Your task to perform on an android device: What is the recent news? Image 0: 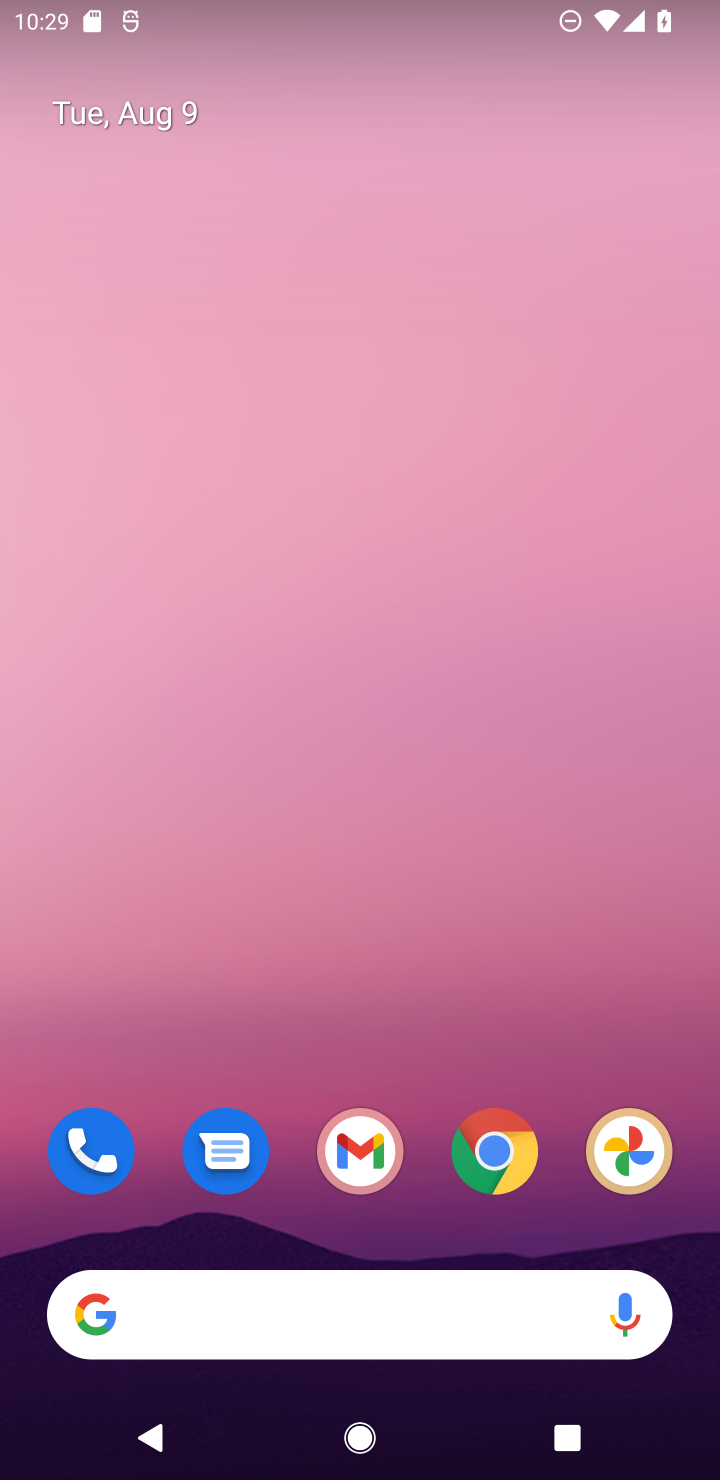
Step 0: click (430, 1294)
Your task to perform on an android device: What is the recent news? Image 1: 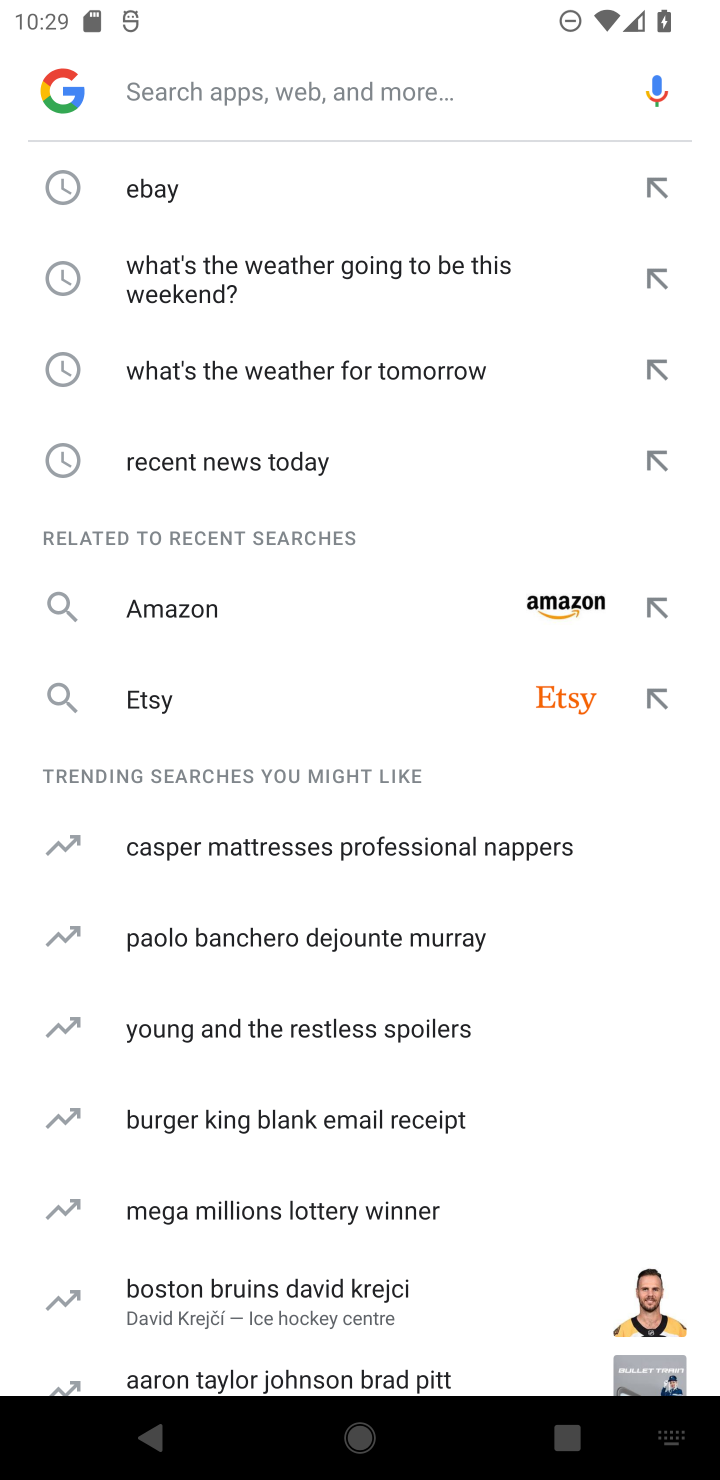
Step 1: click (304, 465)
Your task to perform on an android device: What is the recent news? Image 2: 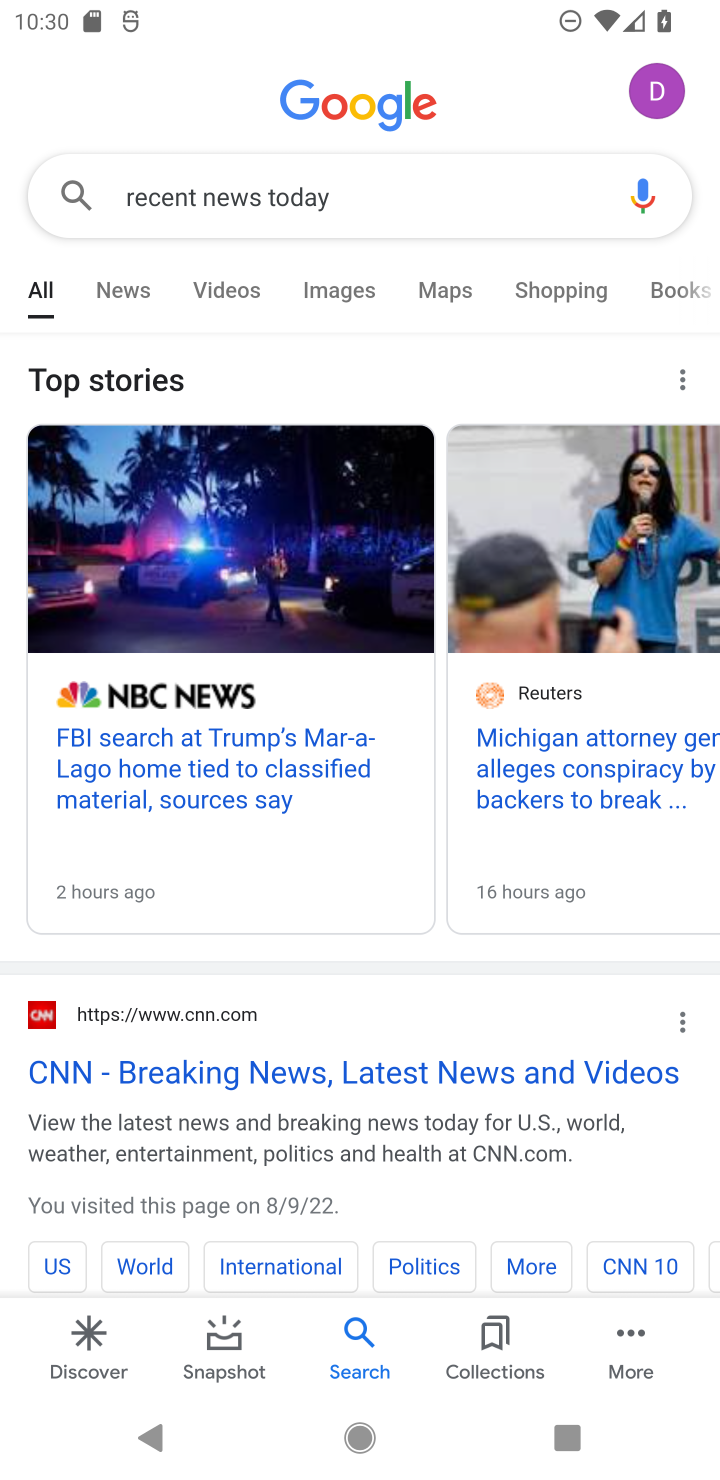
Step 2: task complete